Your task to perform on an android device: Open my contact list Image 0: 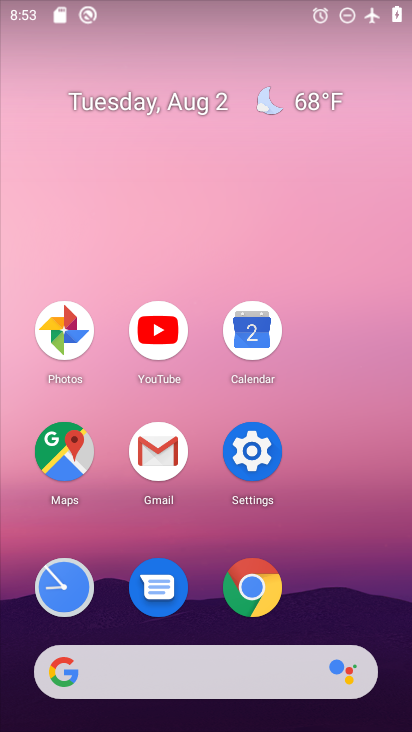
Step 0: drag from (335, 559) to (311, 16)
Your task to perform on an android device: Open my contact list Image 1: 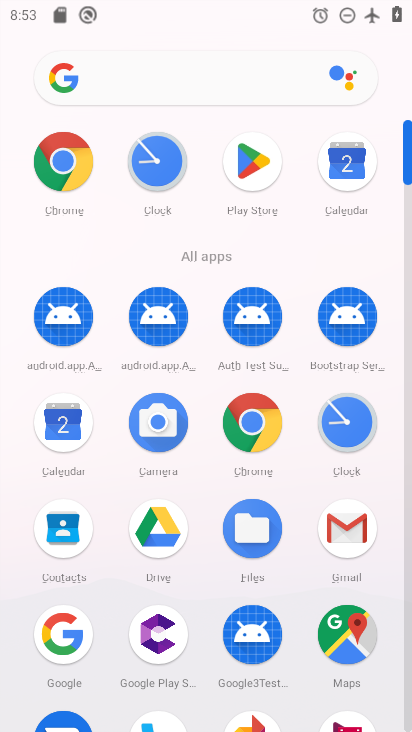
Step 1: click (62, 536)
Your task to perform on an android device: Open my contact list Image 2: 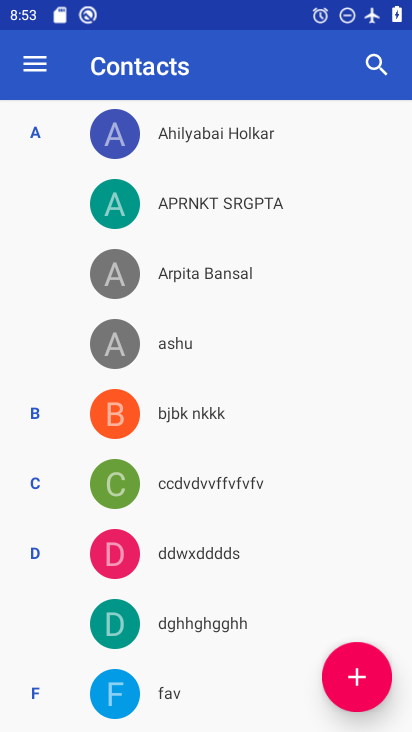
Step 2: task complete